Your task to perform on an android device: change the clock style Image 0: 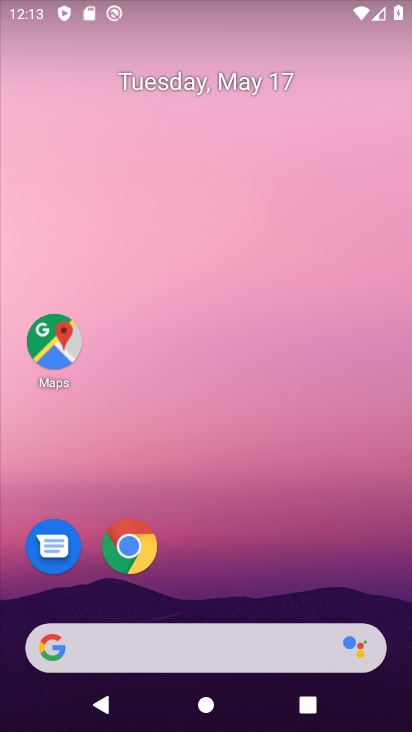
Step 0: drag from (400, 622) to (345, 106)
Your task to perform on an android device: change the clock style Image 1: 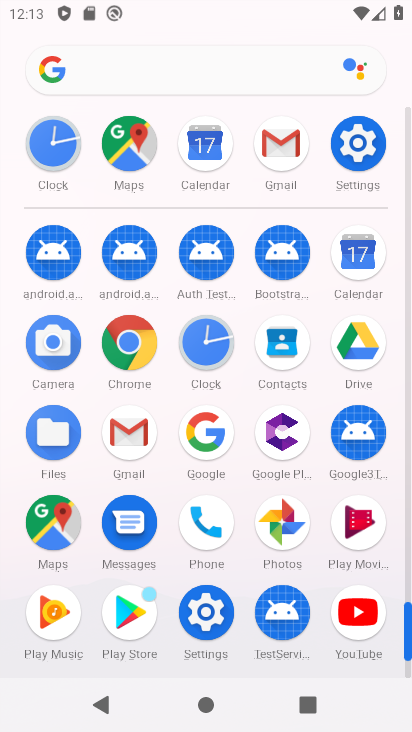
Step 1: click (204, 339)
Your task to perform on an android device: change the clock style Image 2: 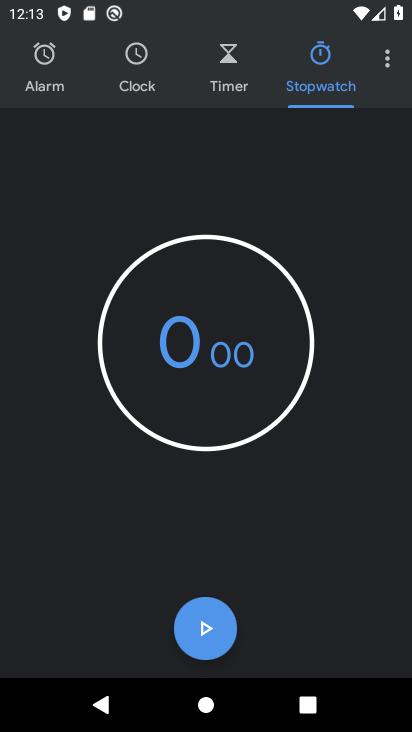
Step 2: click (388, 64)
Your task to perform on an android device: change the clock style Image 3: 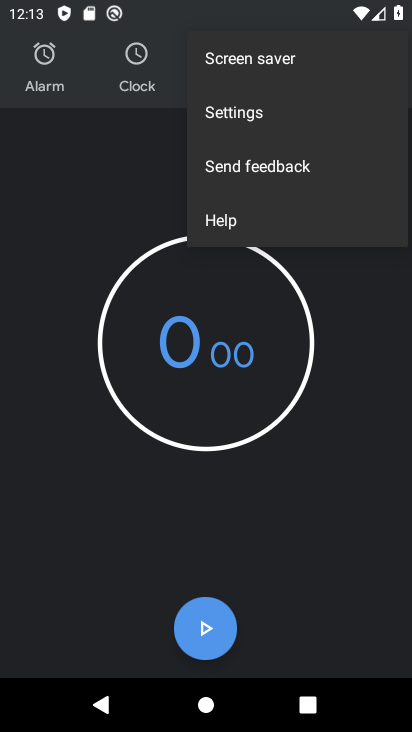
Step 3: click (226, 103)
Your task to perform on an android device: change the clock style Image 4: 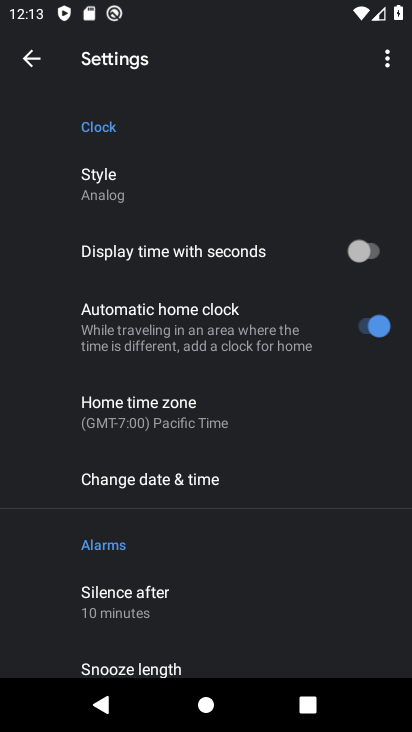
Step 4: click (108, 188)
Your task to perform on an android device: change the clock style Image 5: 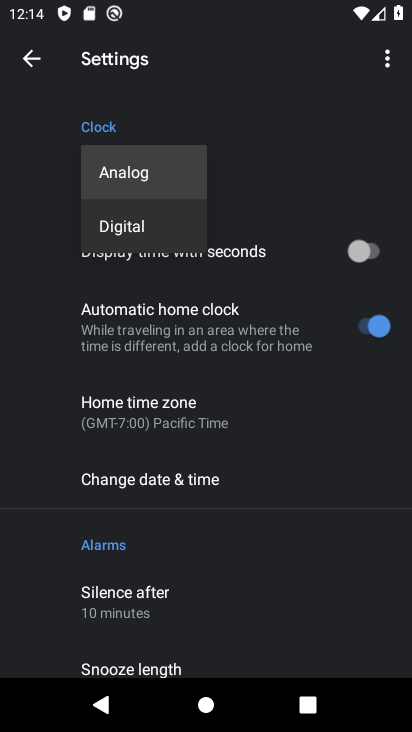
Step 5: click (129, 229)
Your task to perform on an android device: change the clock style Image 6: 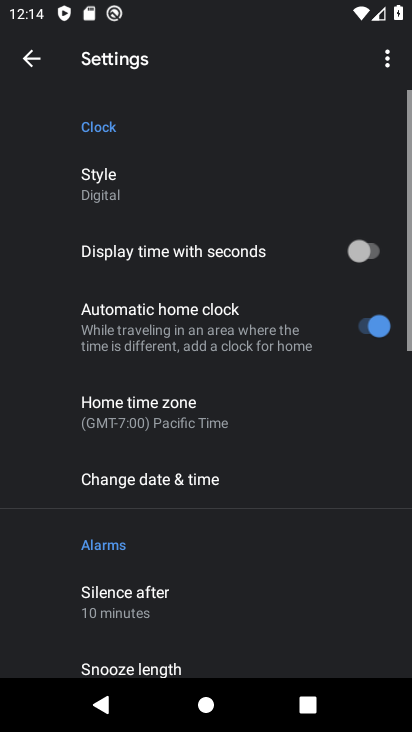
Step 6: task complete